Your task to perform on an android device: turn on translation in the chrome app Image 0: 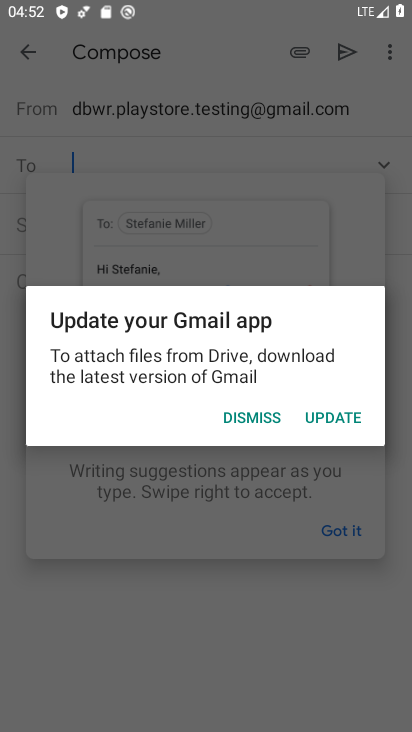
Step 0: press back button
Your task to perform on an android device: turn on translation in the chrome app Image 1: 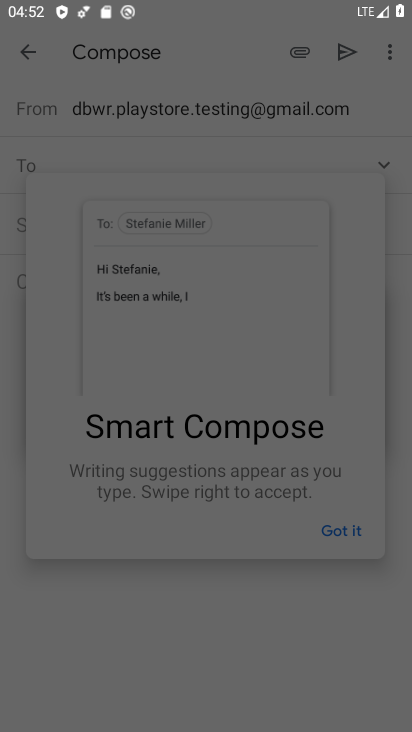
Step 1: press back button
Your task to perform on an android device: turn on translation in the chrome app Image 2: 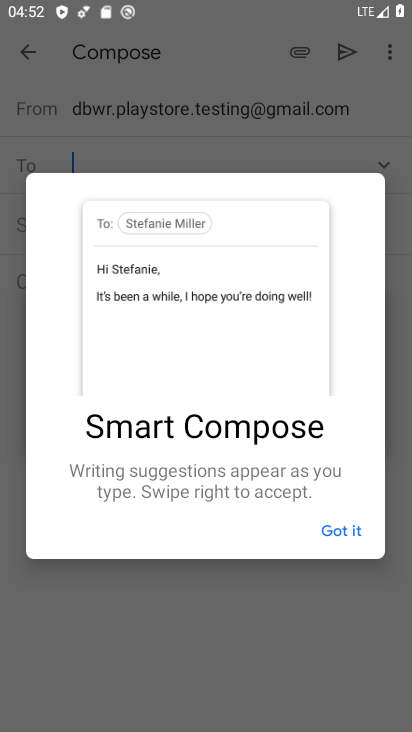
Step 2: press back button
Your task to perform on an android device: turn on translation in the chrome app Image 3: 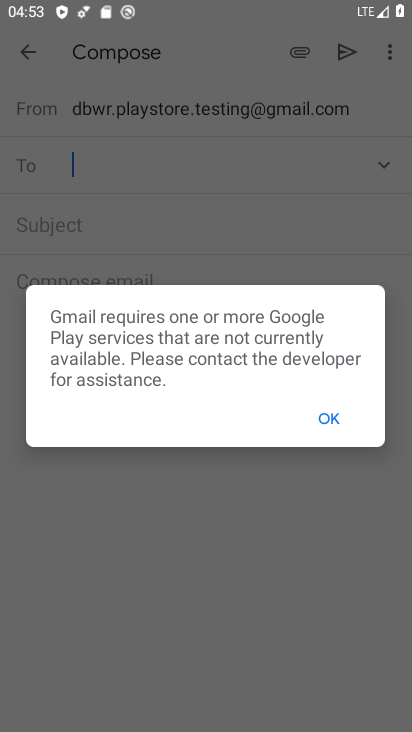
Step 3: press home button
Your task to perform on an android device: turn on translation in the chrome app Image 4: 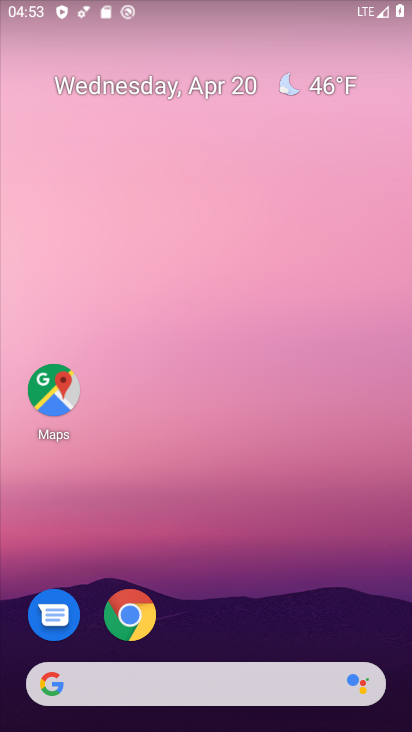
Step 4: click (132, 608)
Your task to perform on an android device: turn on translation in the chrome app Image 5: 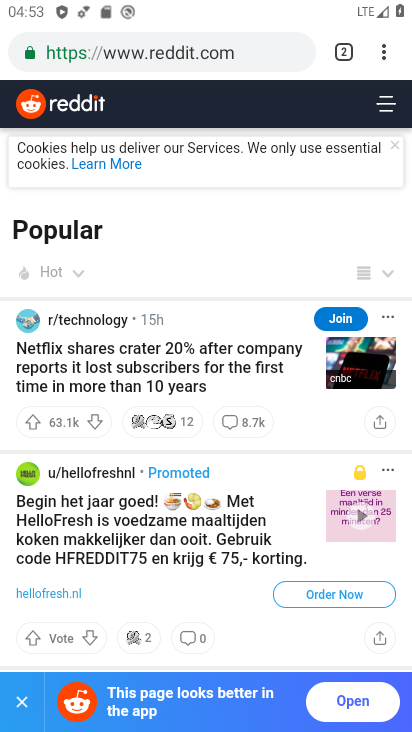
Step 5: drag from (376, 49) to (207, 670)
Your task to perform on an android device: turn on translation in the chrome app Image 6: 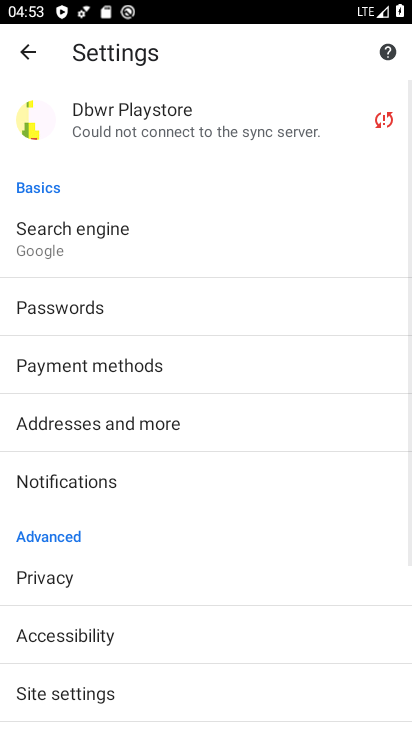
Step 6: drag from (186, 655) to (263, 166)
Your task to perform on an android device: turn on translation in the chrome app Image 7: 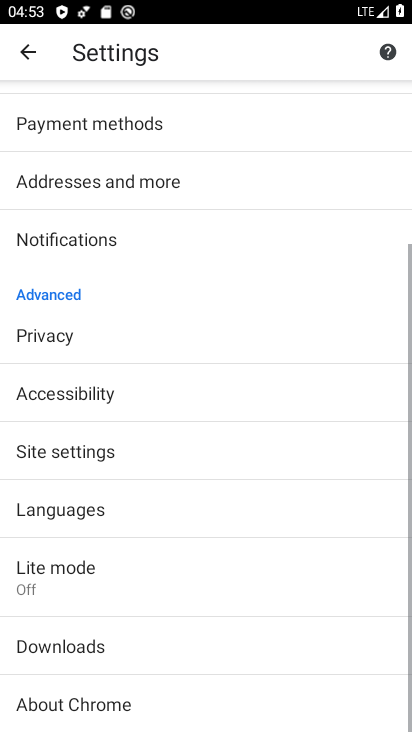
Step 7: click (49, 511)
Your task to perform on an android device: turn on translation in the chrome app Image 8: 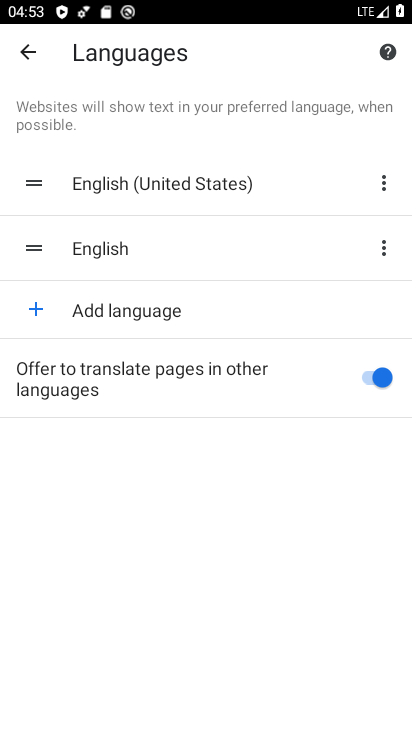
Step 8: task complete